Your task to perform on an android device: set default search engine in the chrome app Image 0: 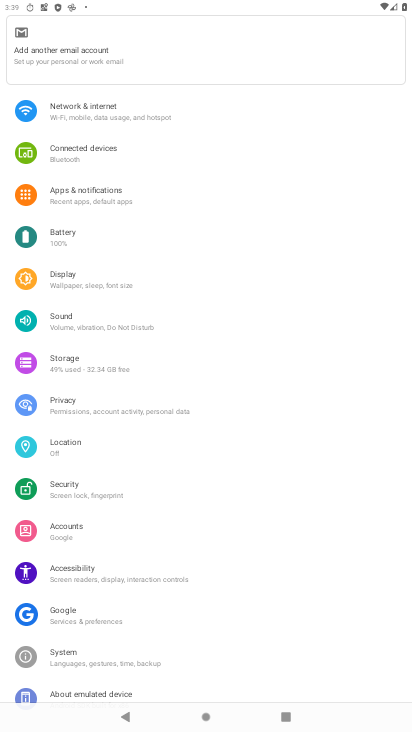
Step 0: press home button
Your task to perform on an android device: set default search engine in the chrome app Image 1: 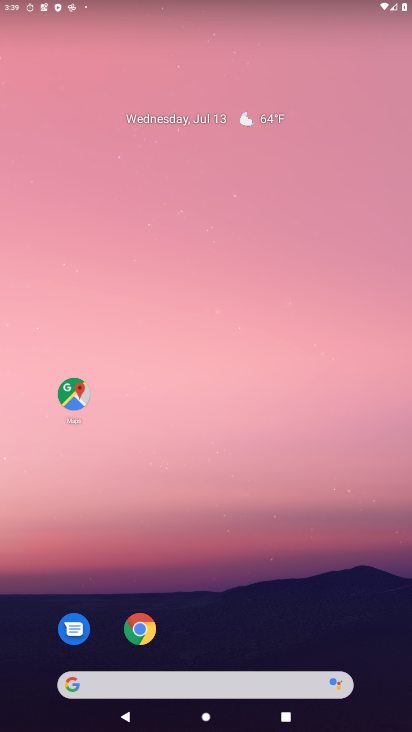
Step 1: drag from (295, 650) to (267, 5)
Your task to perform on an android device: set default search engine in the chrome app Image 2: 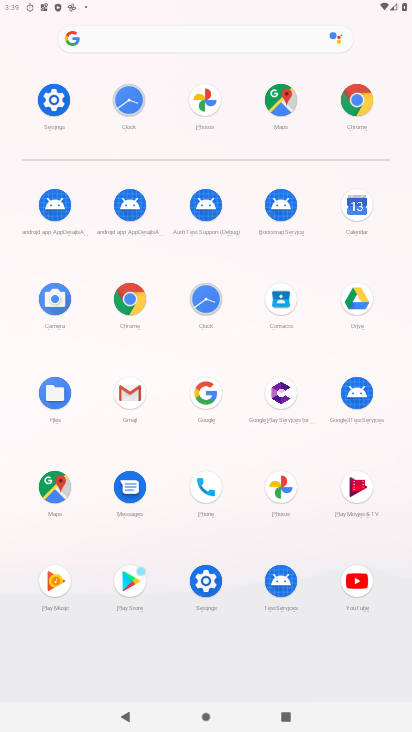
Step 2: click (130, 297)
Your task to perform on an android device: set default search engine in the chrome app Image 3: 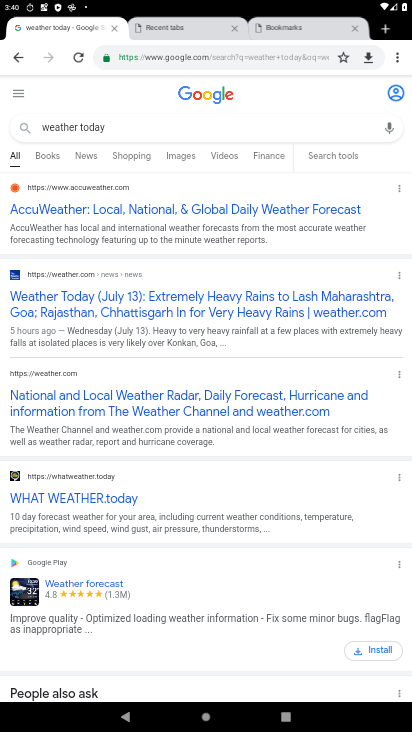
Step 3: click (392, 55)
Your task to perform on an android device: set default search engine in the chrome app Image 4: 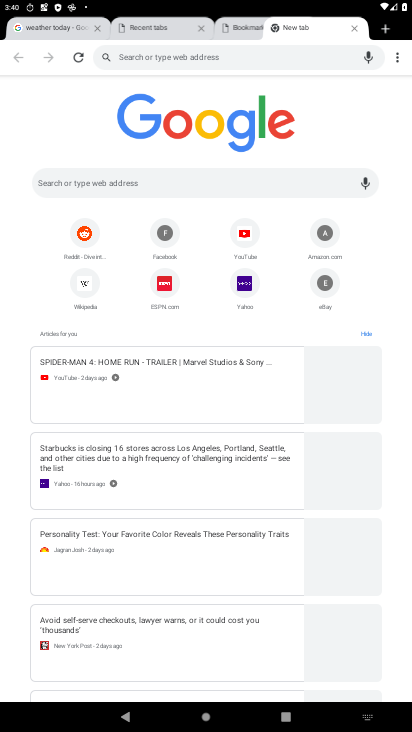
Step 4: drag from (403, 51) to (285, 260)
Your task to perform on an android device: set default search engine in the chrome app Image 5: 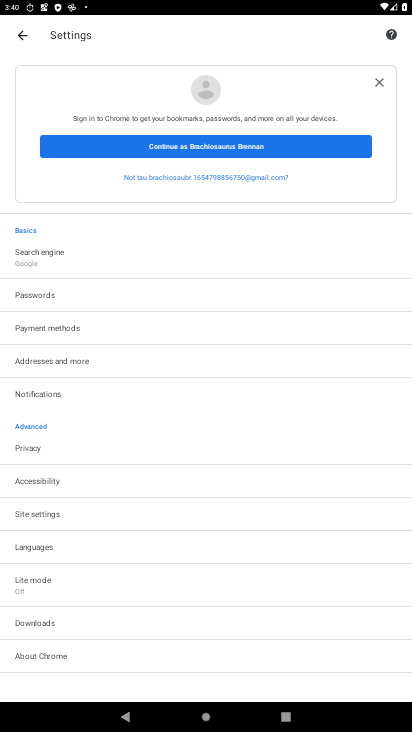
Step 5: click (36, 250)
Your task to perform on an android device: set default search engine in the chrome app Image 6: 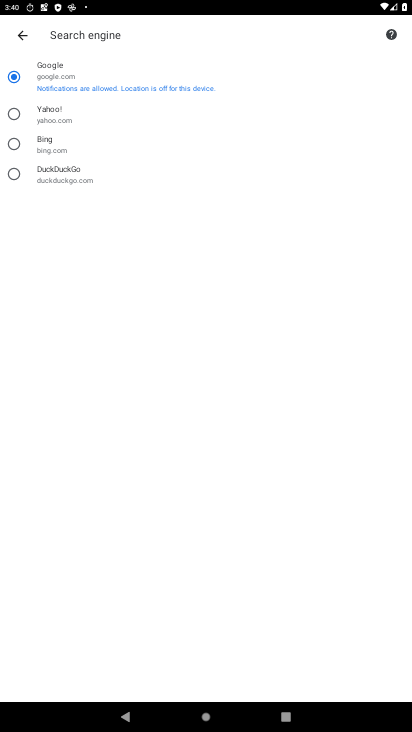
Step 6: task complete